Your task to perform on an android device: check storage Image 0: 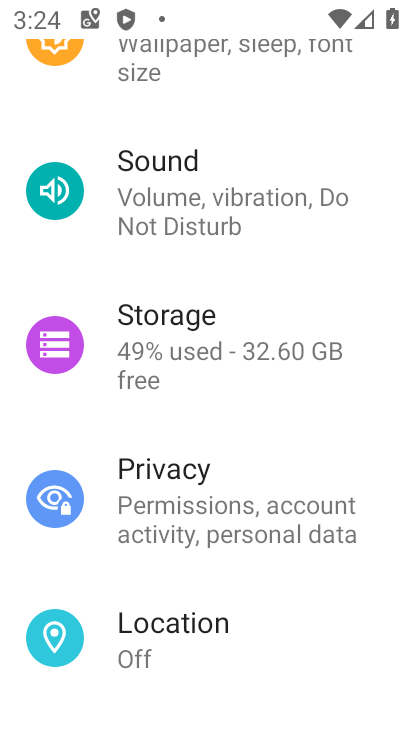
Step 0: click (253, 348)
Your task to perform on an android device: check storage Image 1: 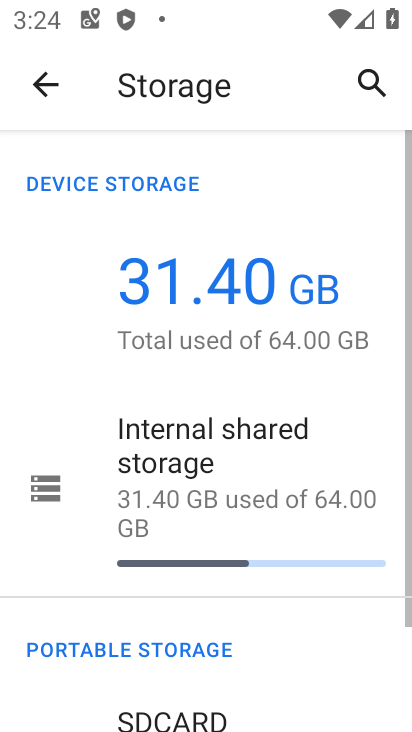
Step 1: task complete